Your task to perform on an android device: Open Google Maps Image 0: 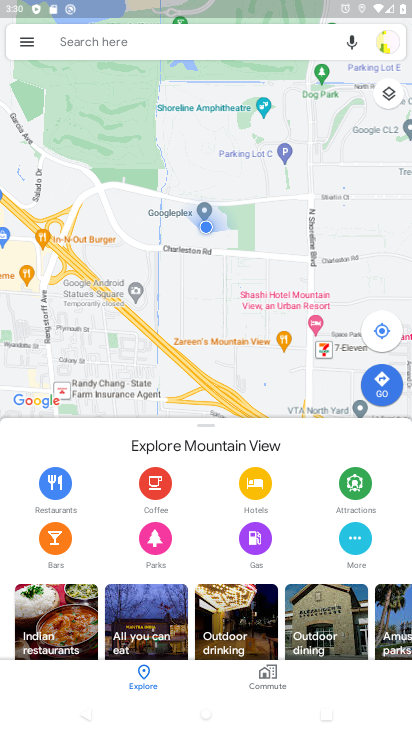
Step 0: task complete